Your task to perform on an android device: Open the phone app and click the voicemail tab. Image 0: 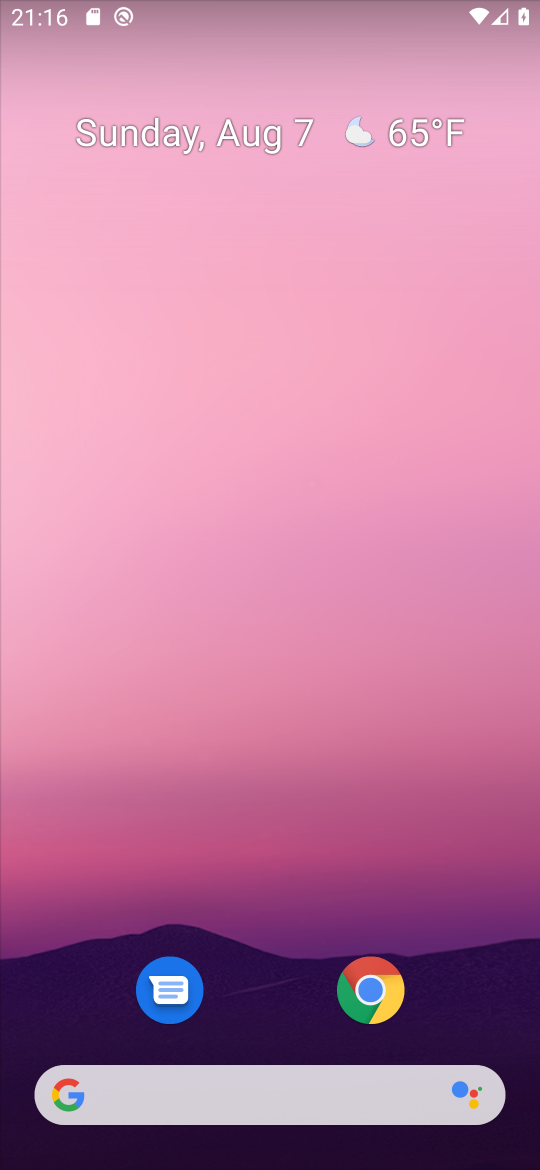
Step 0: drag from (289, 982) to (358, 3)
Your task to perform on an android device: Open the phone app and click the voicemail tab. Image 1: 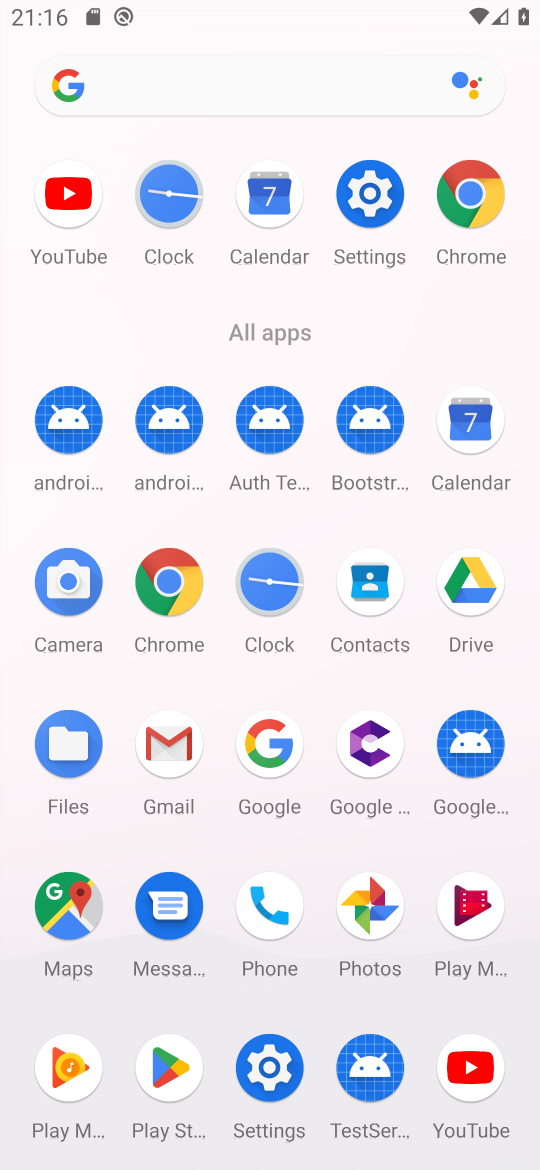
Step 1: click (261, 904)
Your task to perform on an android device: Open the phone app and click the voicemail tab. Image 2: 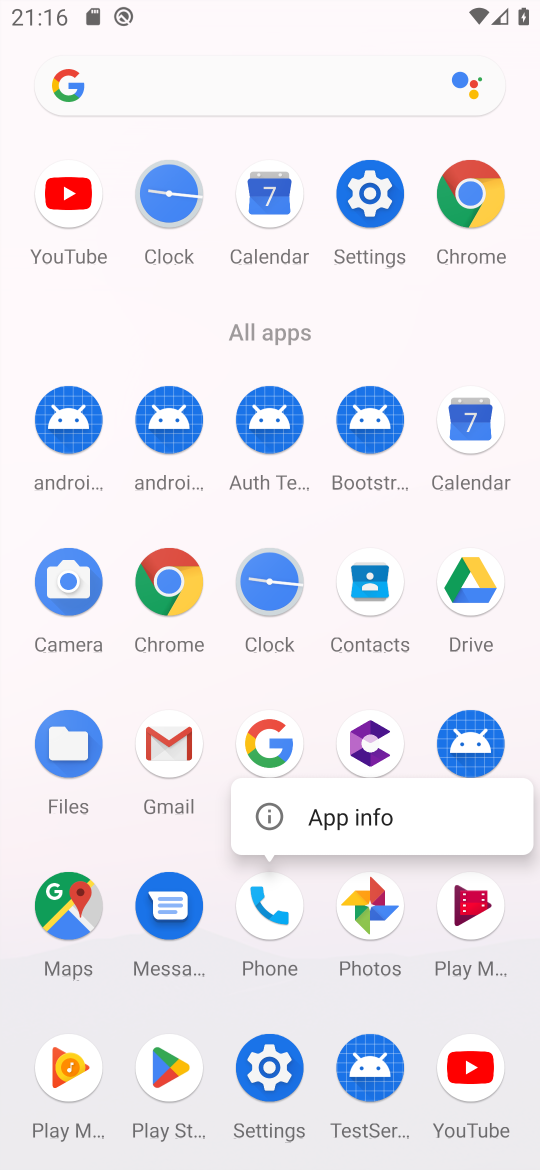
Step 2: click (261, 904)
Your task to perform on an android device: Open the phone app and click the voicemail tab. Image 3: 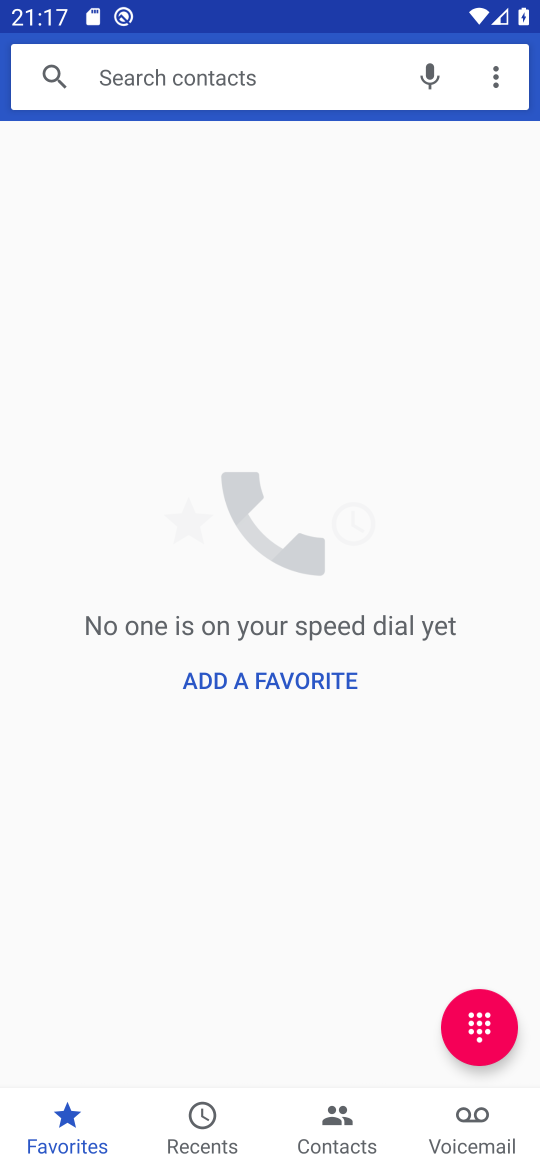
Step 3: click (468, 1128)
Your task to perform on an android device: Open the phone app and click the voicemail tab. Image 4: 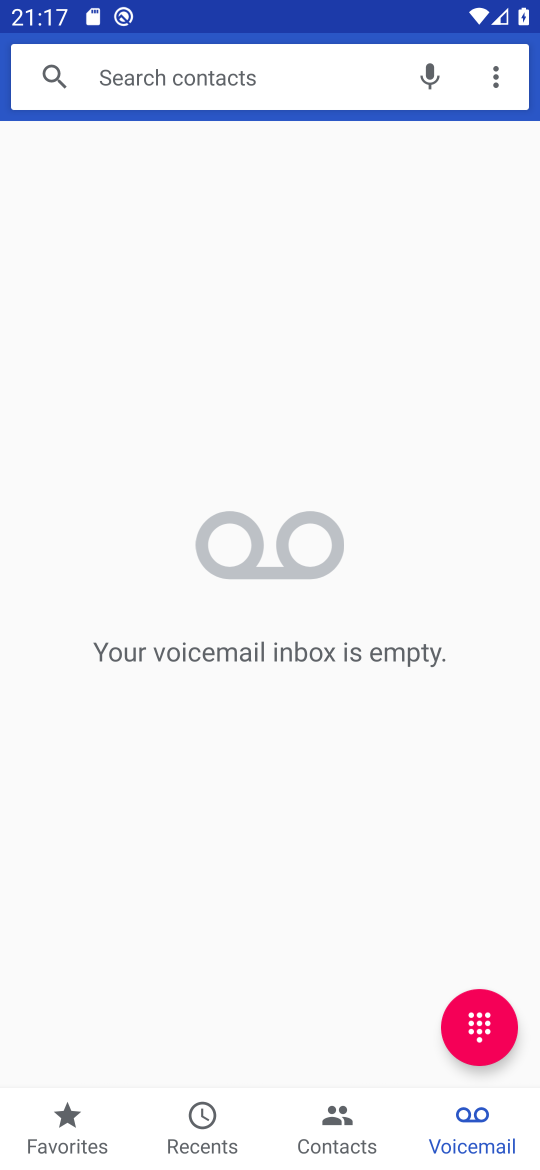
Step 4: task complete